Your task to perform on an android device: turn off notifications settings in the gmail app Image 0: 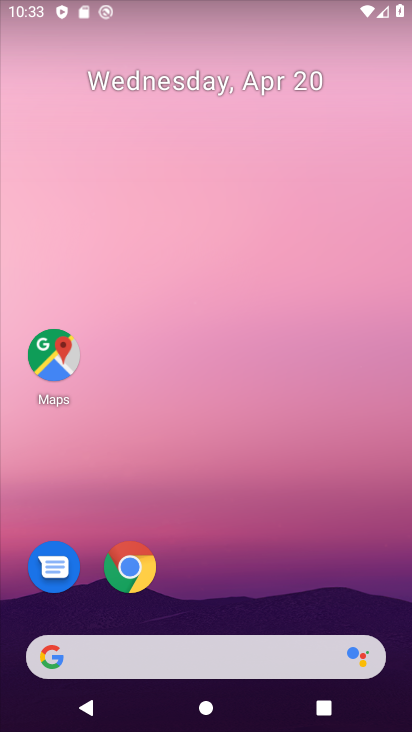
Step 0: drag from (243, 578) to (254, 134)
Your task to perform on an android device: turn off notifications settings in the gmail app Image 1: 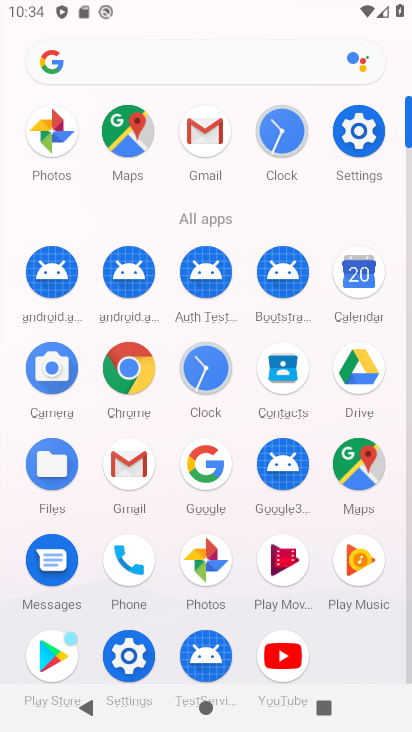
Step 1: click (123, 483)
Your task to perform on an android device: turn off notifications settings in the gmail app Image 2: 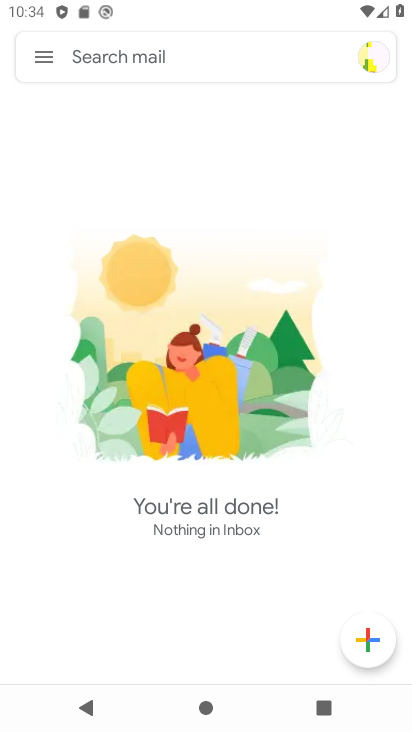
Step 2: click (34, 68)
Your task to perform on an android device: turn off notifications settings in the gmail app Image 3: 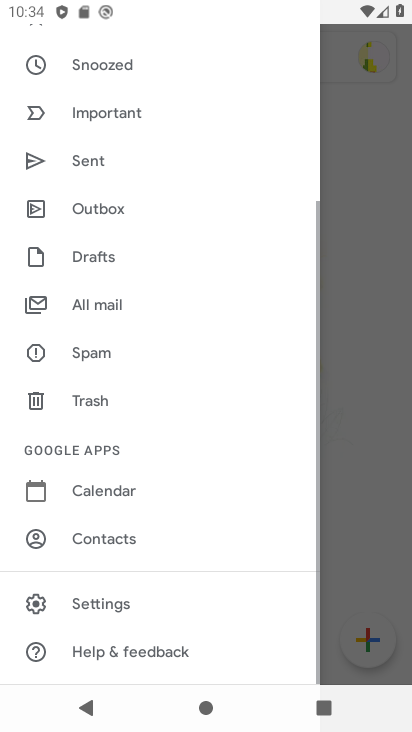
Step 3: drag from (162, 579) to (149, 277)
Your task to perform on an android device: turn off notifications settings in the gmail app Image 4: 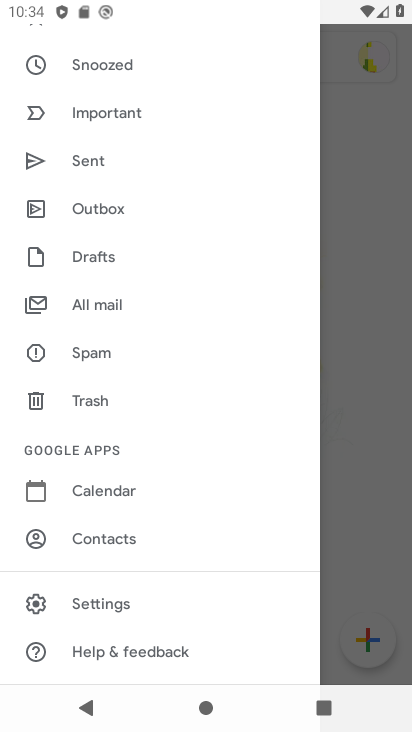
Step 4: click (111, 598)
Your task to perform on an android device: turn off notifications settings in the gmail app Image 5: 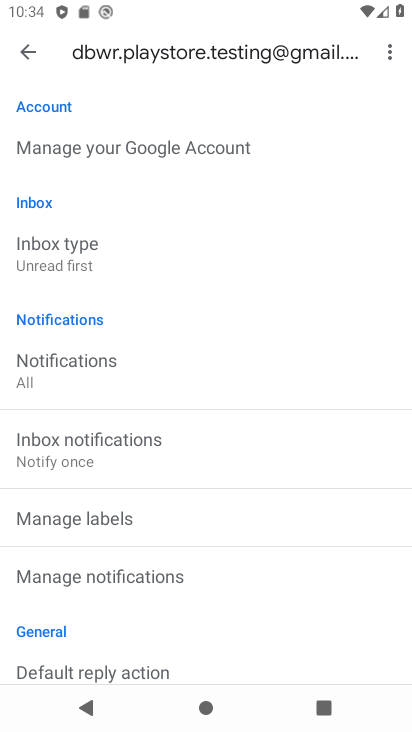
Step 5: click (139, 574)
Your task to perform on an android device: turn off notifications settings in the gmail app Image 6: 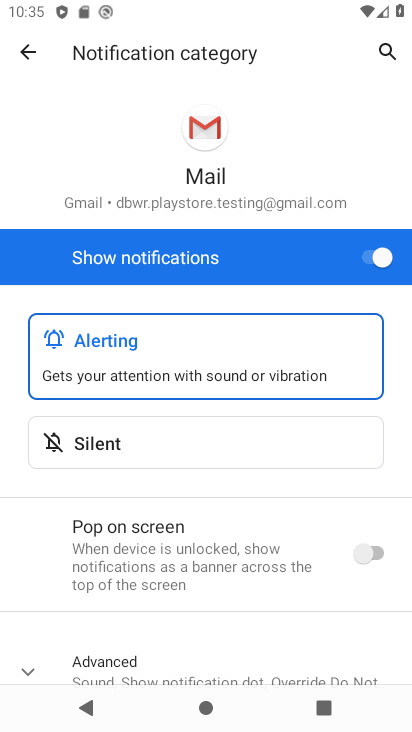
Step 6: click (393, 263)
Your task to perform on an android device: turn off notifications settings in the gmail app Image 7: 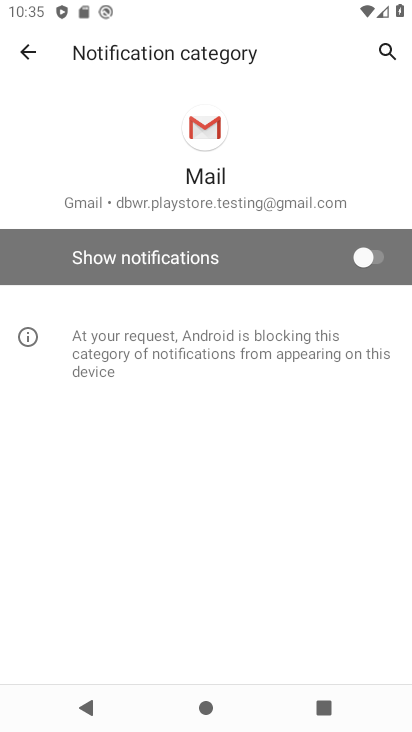
Step 7: task complete